Your task to perform on an android device: turn on sleep mode Image 0: 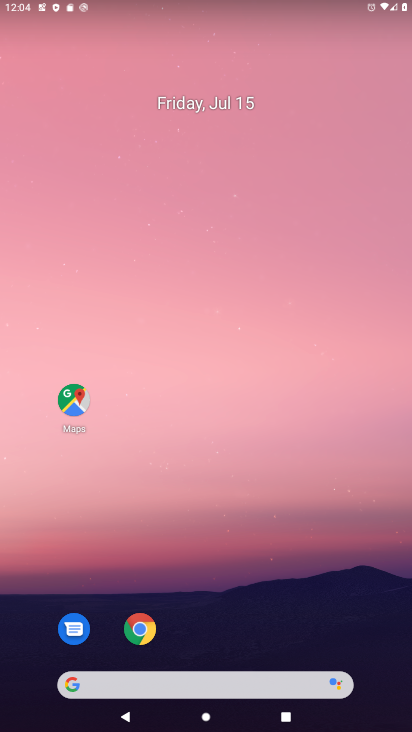
Step 0: press home button
Your task to perform on an android device: turn on sleep mode Image 1: 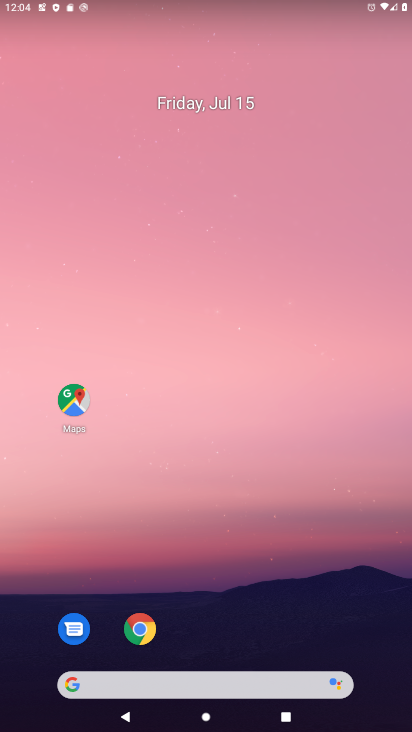
Step 1: drag from (234, 631) to (297, 198)
Your task to perform on an android device: turn on sleep mode Image 2: 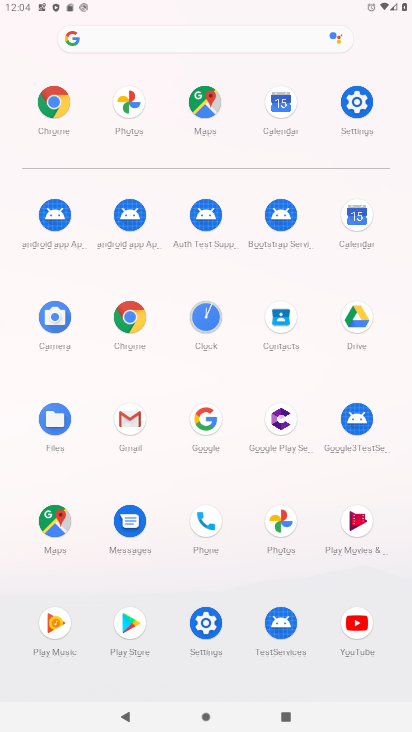
Step 2: click (352, 103)
Your task to perform on an android device: turn on sleep mode Image 3: 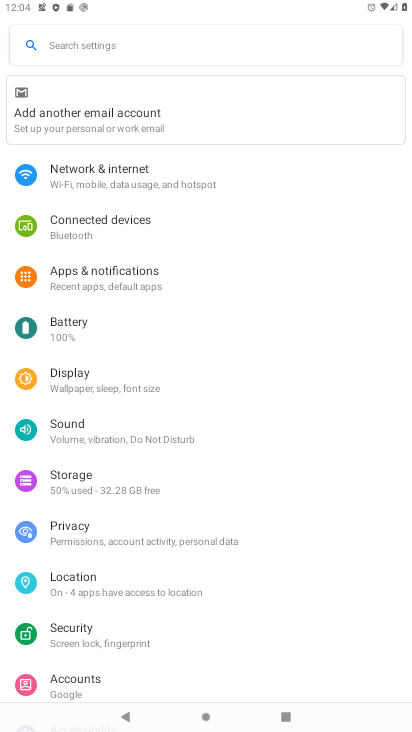
Step 3: click (80, 379)
Your task to perform on an android device: turn on sleep mode Image 4: 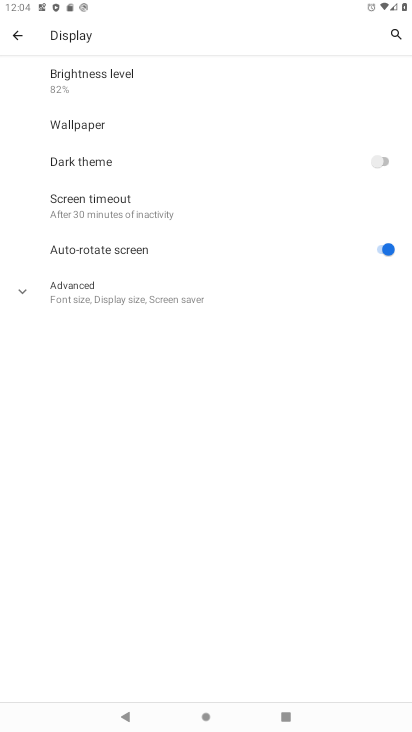
Step 4: task complete